Your task to perform on an android device: turn on javascript in the chrome app Image 0: 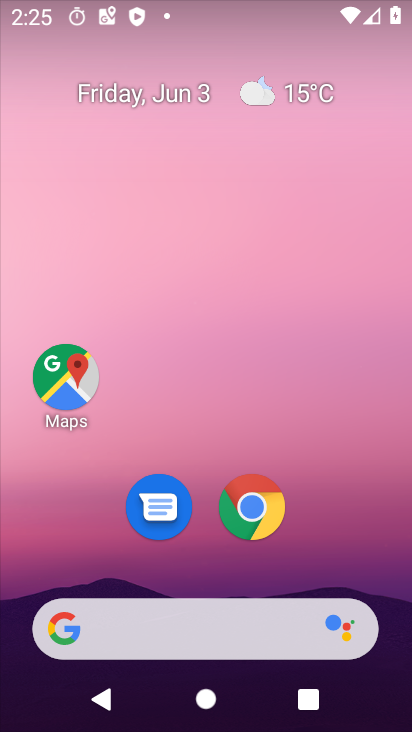
Step 0: drag from (404, 623) to (297, 33)
Your task to perform on an android device: turn on javascript in the chrome app Image 1: 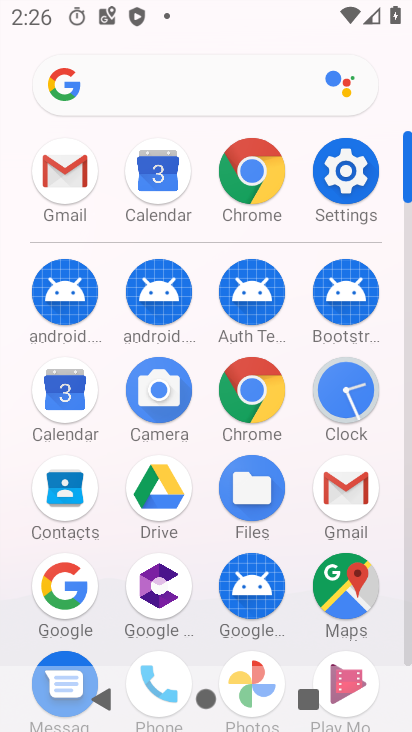
Step 1: click (270, 396)
Your task to perform on an android device: turn on javascript in the chrome app Image 2: 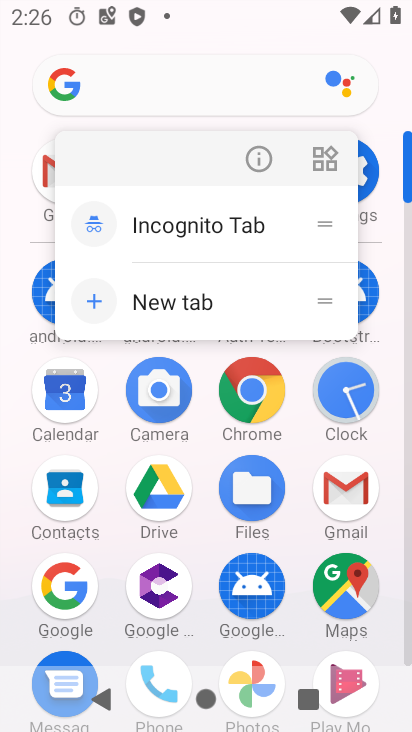
Step 2: click (269, 395)
Your task to perform on an android device: turn on javascript in the chrome app Image 3: 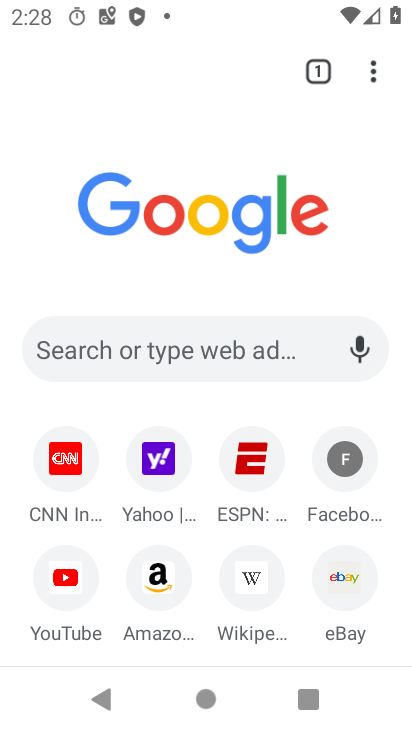
Step 3: click (369, 63)
Your task to perform on an android device: turn on javascript in the chrome app Image 4: 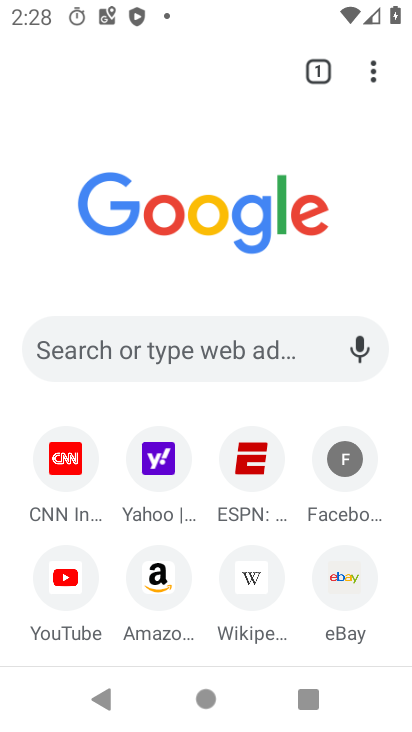
Step 4: click (372, 69)
Your task to perform on an android device: turn on javascript in the chrome app Image 5: 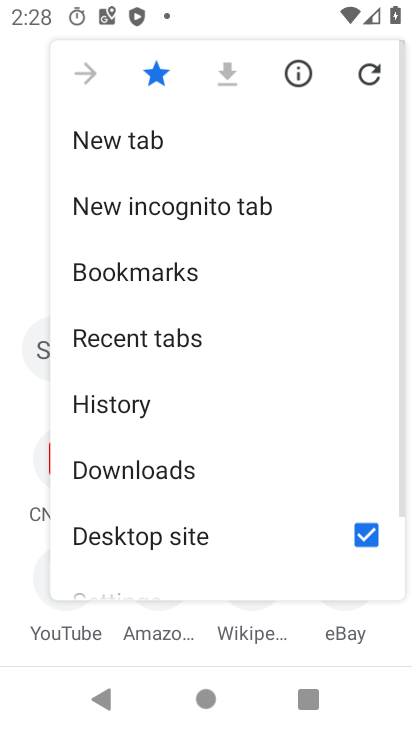
Step 5: drag from (229, 538) to (273, 175)
Your task to perform on an android device: turn on javascript in the chrome app Image 6: 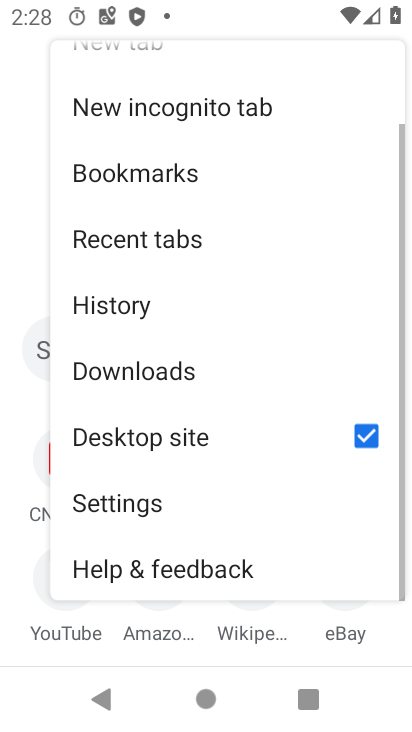
Step 6: click (161, 503)
Your task to perform on an android device: turn on javascript in the chrome app Image 7: 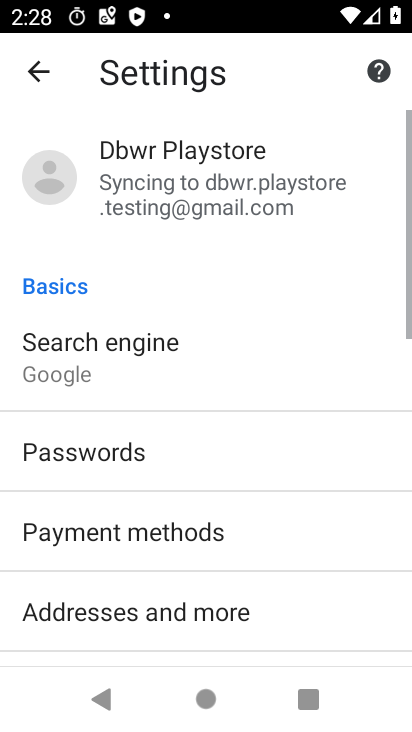
Step 7: drag from (193, 610) to (191, 173)
Your task to perform on an android device: turn on javascript in the chrome app Image 8: 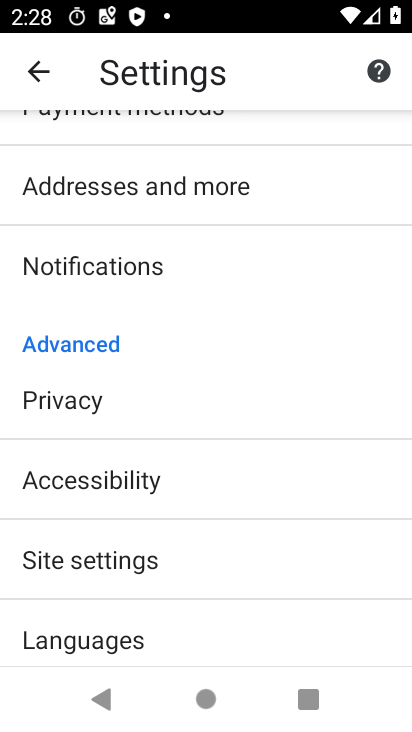
Step 8: click (136, 566)
Your task to perform on an android device: turn on javascript in the chrome app Image 9: 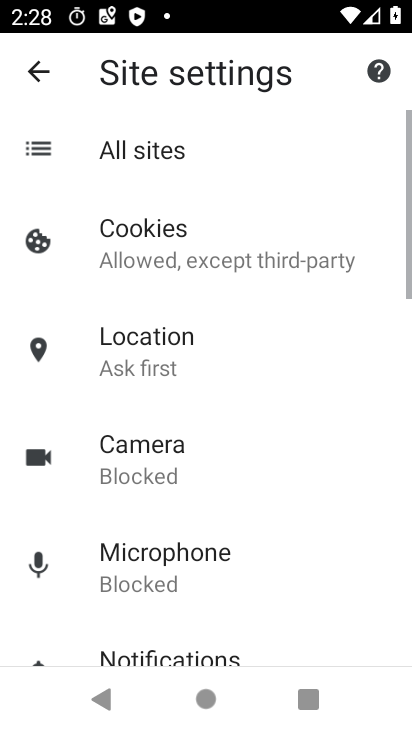
Step 9: drag from (202, 611) to (262, 205)
Your task to perform on an android device: turn on javascript in the chrome app Image 10: 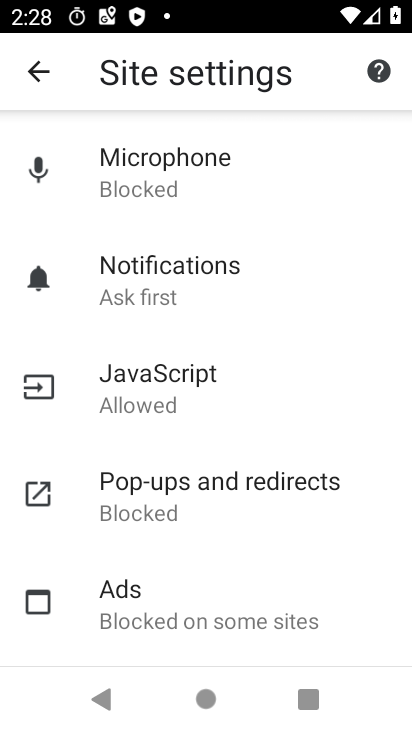
Step 10: click (192, 416)
Your task to perform on an android device: turn on javascript in the chrome app Image 11: 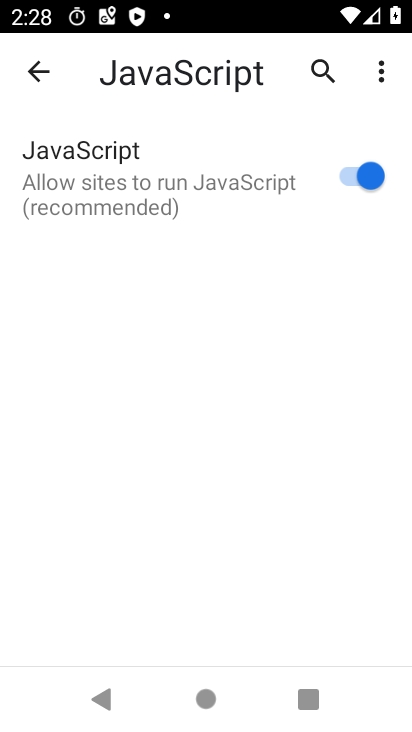
Step 11: task complete